Your task to perform on an android device: Play the last video I watched on Youtube Image 0: 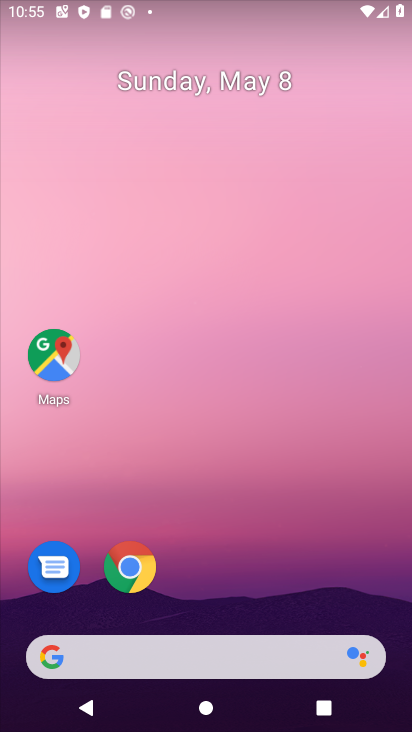
Step 0: press home button
Your task to perform on an android device: Play the last video I watched on Youtube Image 1: 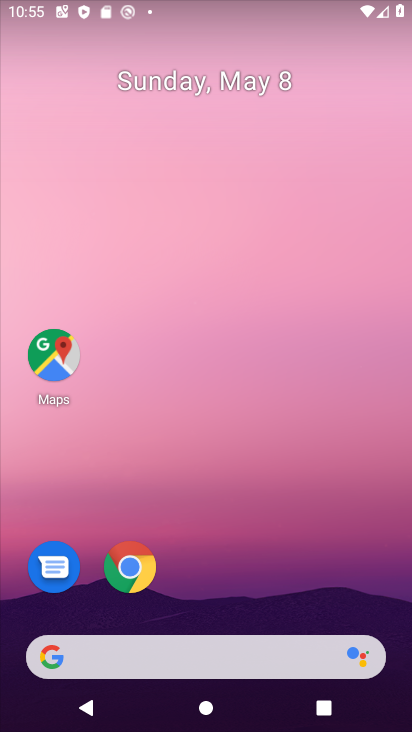
Step 1: drag from (216, 611) to (265, 39)
Your task to perform on an android device: Play the last video I watched on Youtube Image 2: 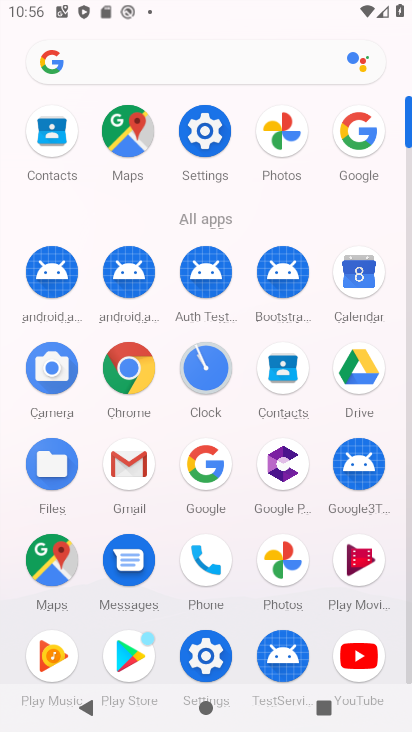
Step 2: click (359, 654)
Your task to perform on an android device: Play the last video I watched on Youtube Image 3: 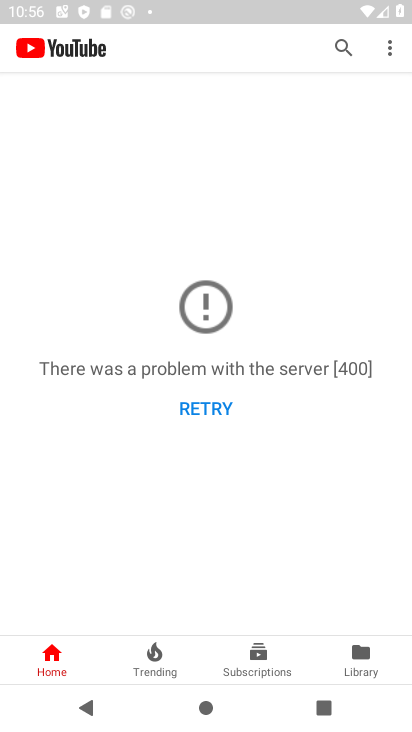
Step 3: click (356, 664)
Your task to perform on an android device: Play the last video I watched on Youtube Image 4: 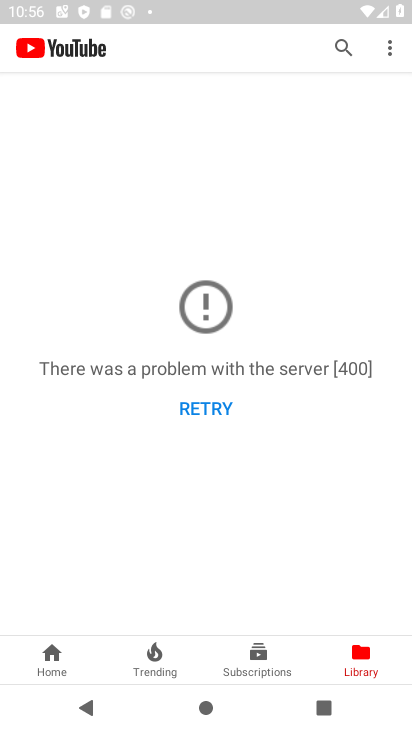
Step 4: task complete